Your task to perform on an android device: Open location settings Image 0: 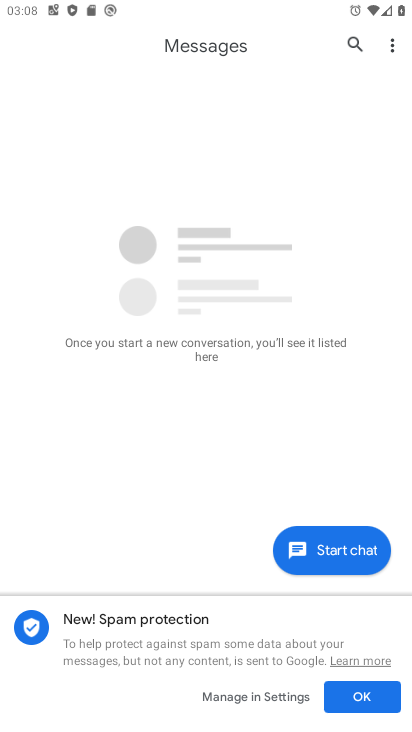
Step 0: press back button
Your task to perform on an android device: Open location settings Image 1: 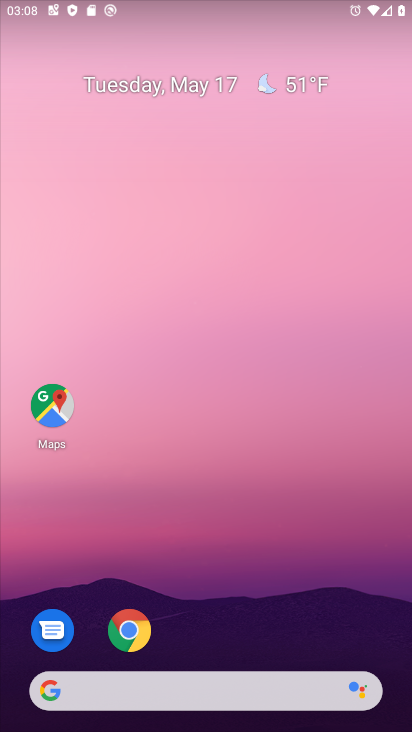
Step 1: drag from (220, 563) to (304, 14)
Your task to perform on an android device: Open location settings Image 2: 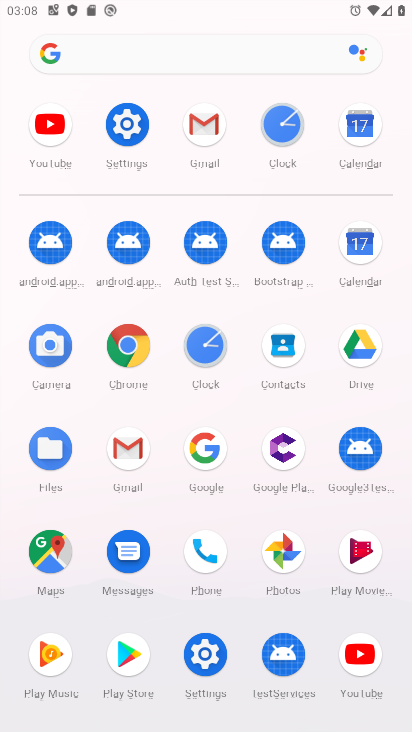
Step 2: click (115, 137)
Your task to perform on an android device: Open location settings Image 3: 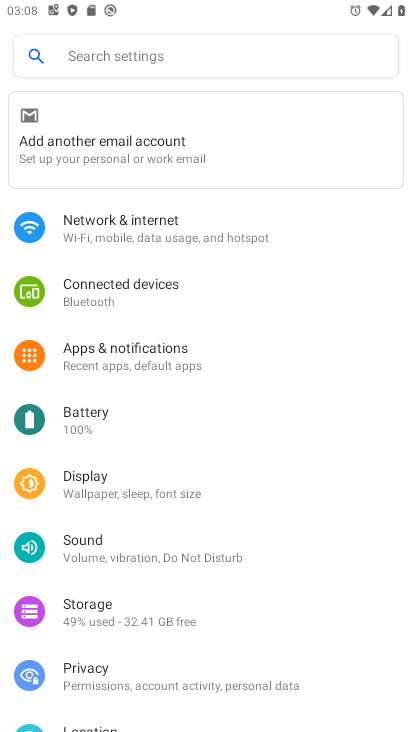
Step 3: drag from (130, 588) to (289, 41)
Your task to perform on an android device: Open location settings Image 4: 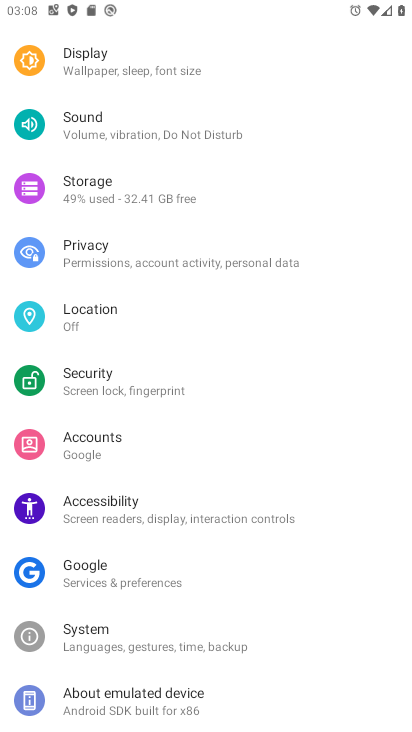
Step 4: click (92, 319)
Your task to perform on an android device: Open location settings Image 5: 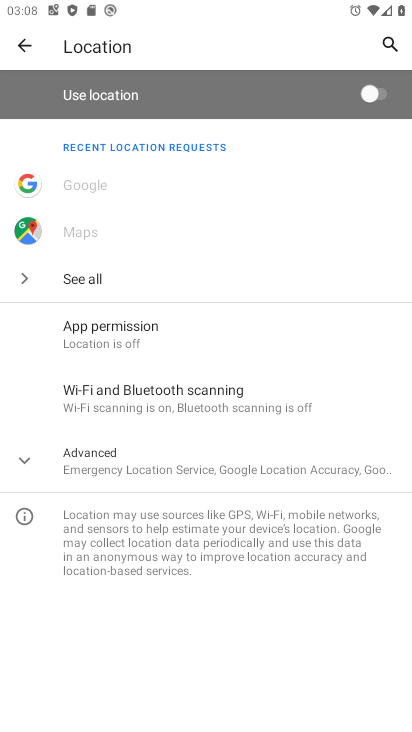
Step 5: task complete